Your task to perform on an android device: What's the weather today? Image 0: 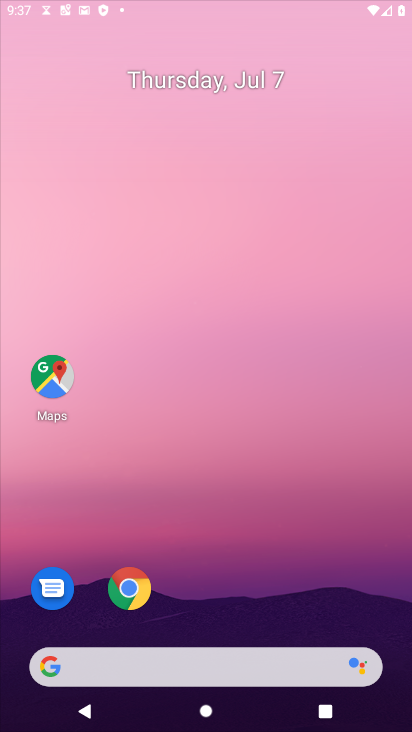
Step 0: drag from (165, 628) to (268, 6)
Your task to perform on an android device: What's the weather today? Image 1: 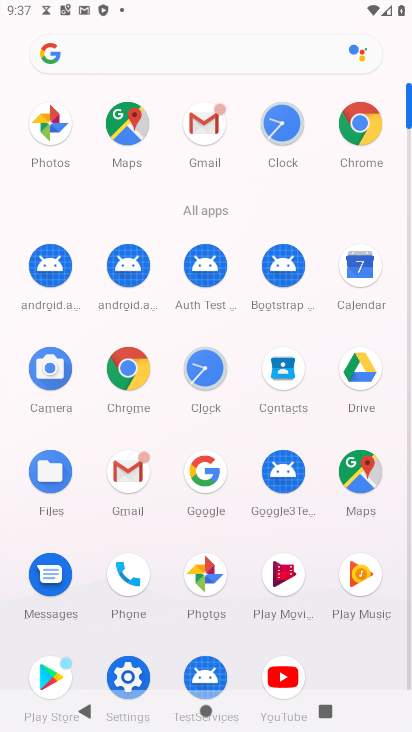
Step 1: click (212, 470)
Your task to perform on an android device: What's the weather today? Image 2: 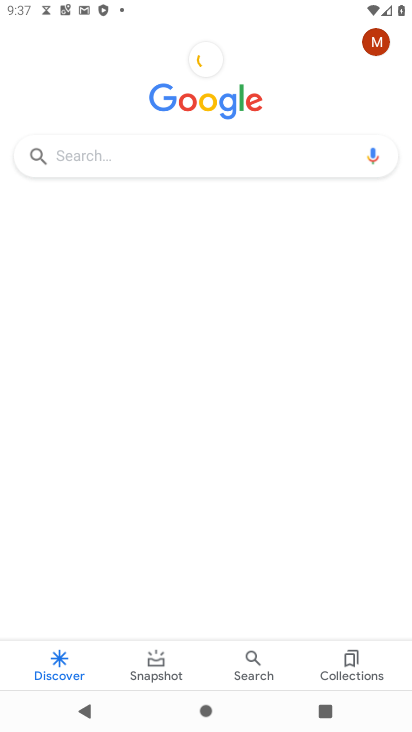
Step 2: click (164, 173)
Your task to perform on an android device: What's the weather today? Image 3: 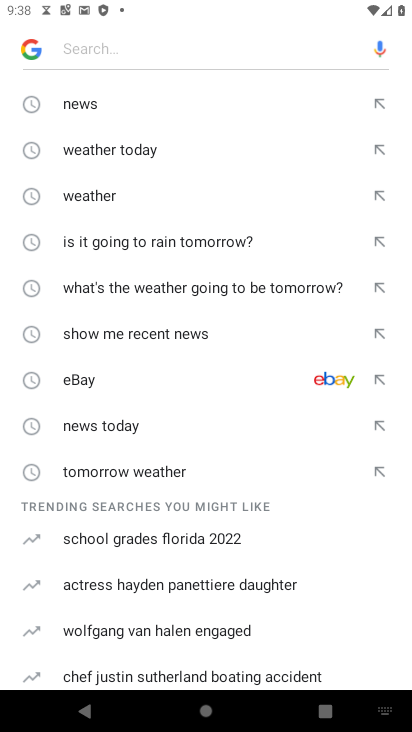
Step 3: type "weather today"
Your task to perform on an android device: What's the weather today? Image 4: 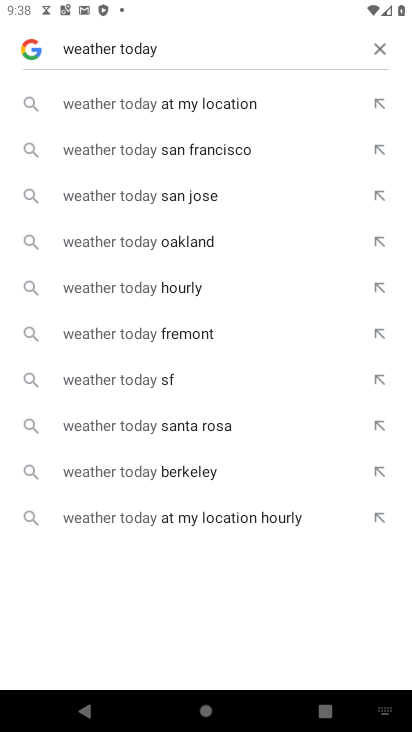
Step 4: click (210, 107)
Your task to perform on an android device: What's the weather today? Image 5: 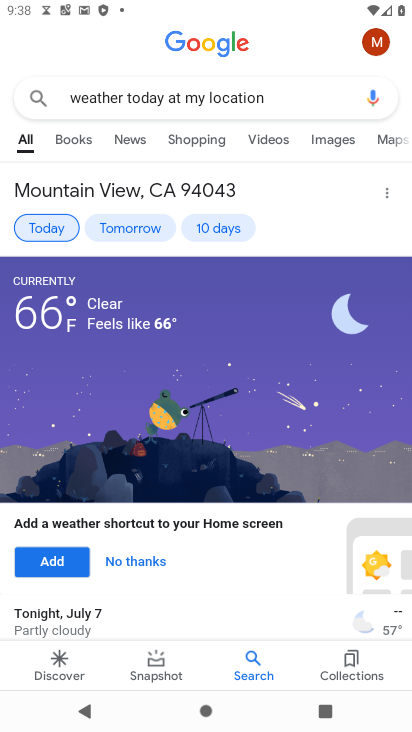
Step 5: task complete